Your task to perform on an android device: turn on javascript in the chrome app Image 0: 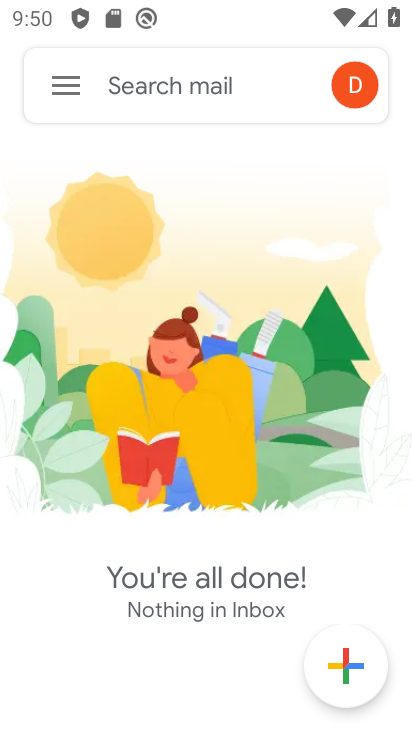
Step 0: press home button
Your task to perform on an android device: turn on javascript in the chrome app Image 1: 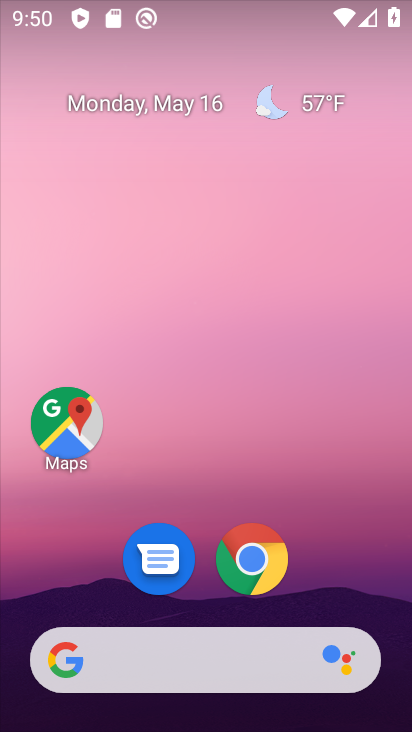
Step 1: click (256, 552)
Your task to perform on an android device: turn on javascript in the chrome app Image 2: 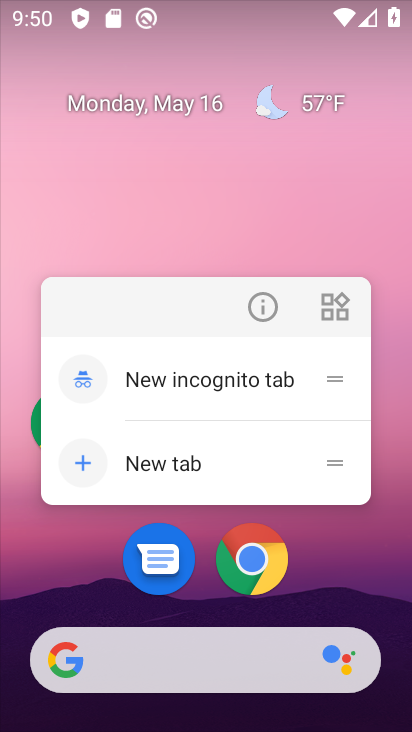
Step 2: click (256, 554)
Your task to perform on an android device: turn on javascript in the chrome app Image 3: 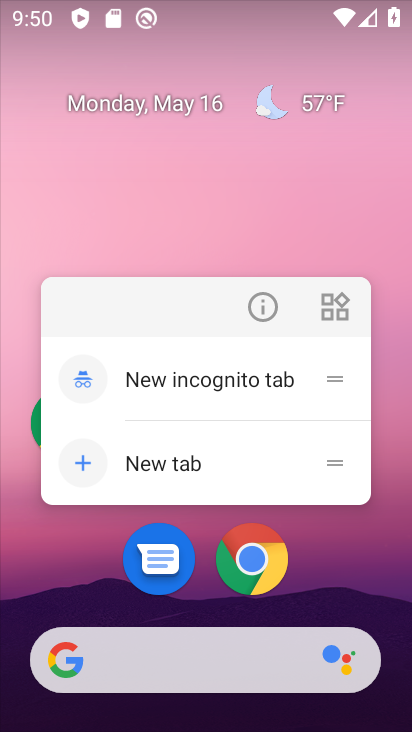
Step 3: click (256, 554)
Your task to perform on an android device: turn on javascript in the chrome app Image 4: 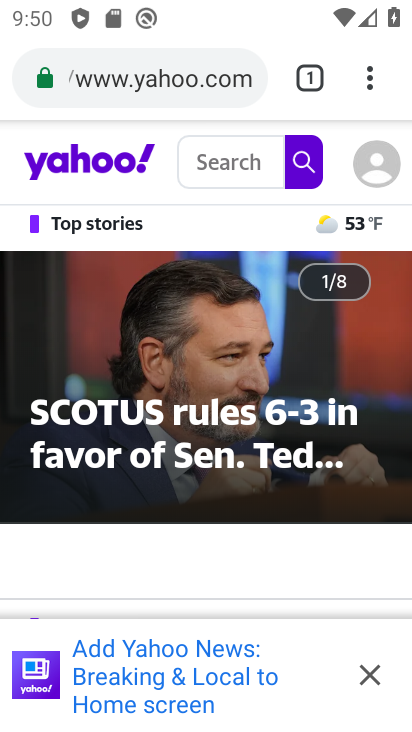
Step 4: drag from (375, 82) to (166, 628)
Your task to perform on an android device: turn on javascript in the chrome app Image 5: 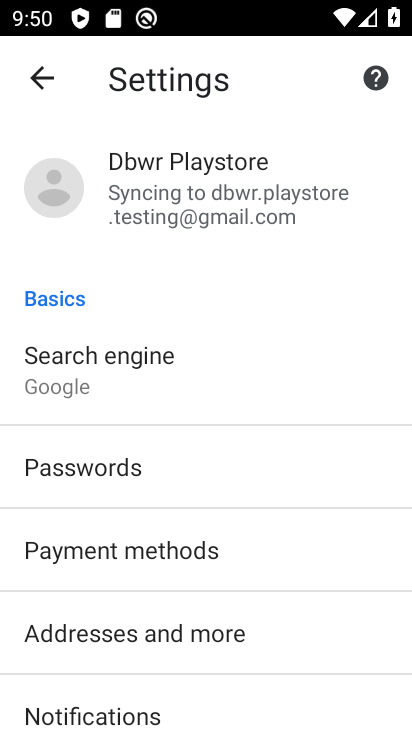
Step 5: drag from (152, 592) to (272, 199)
Your task to perform on an android device: turn on javascript in the chrome app Image 6: 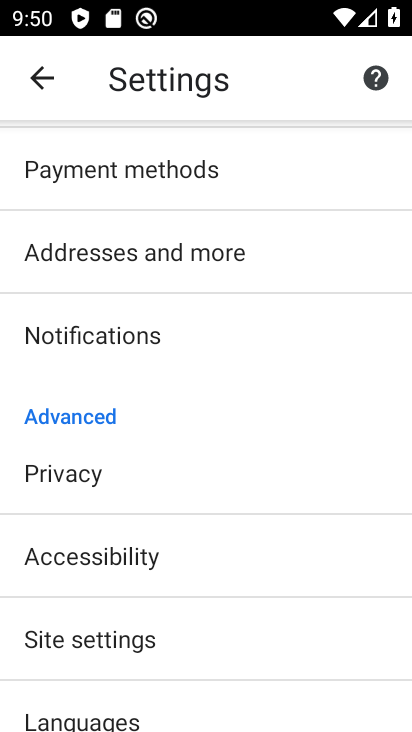
Step 6: click (105, 642)
Your task to perform on an android device: turn on javascript in the chrome app Image 7: 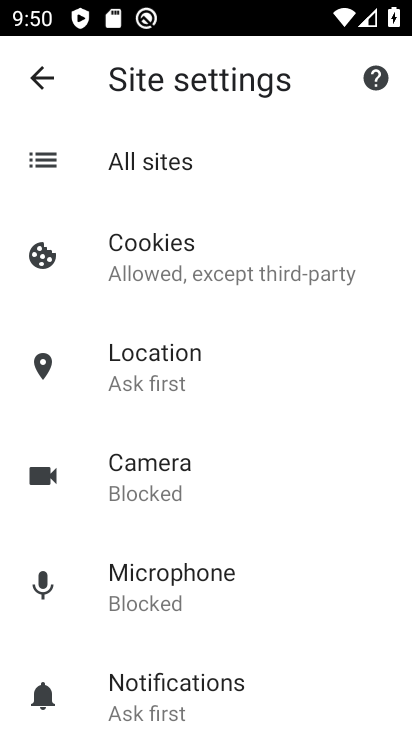
Step 7: drag from (273, 578) to (335, 85)
Your task to perform on an android device: turn on javascript in the chrome app Image 8: 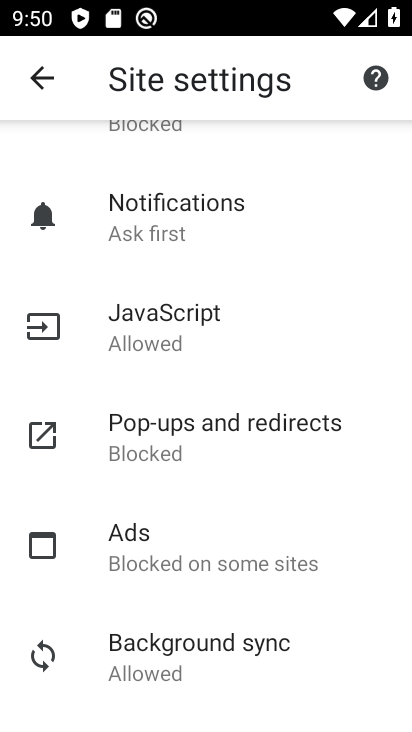
Step 8: click (209, 332)
Your task to perform on an android device: turn on javascript in the chrome app Image 9: 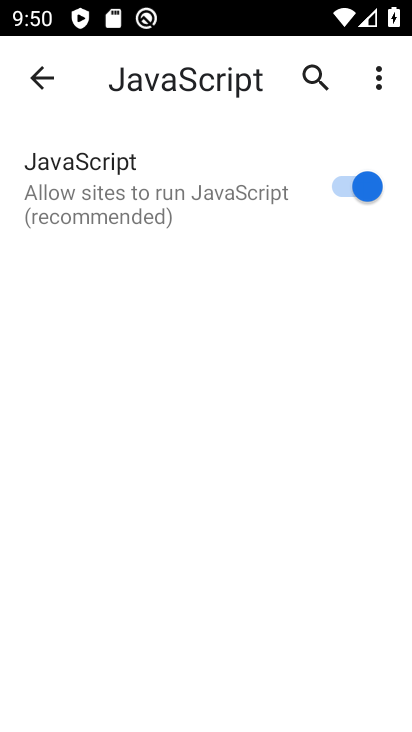
Step 9: task complete